Your task to perform on an android device: turn on wifi Image 0: 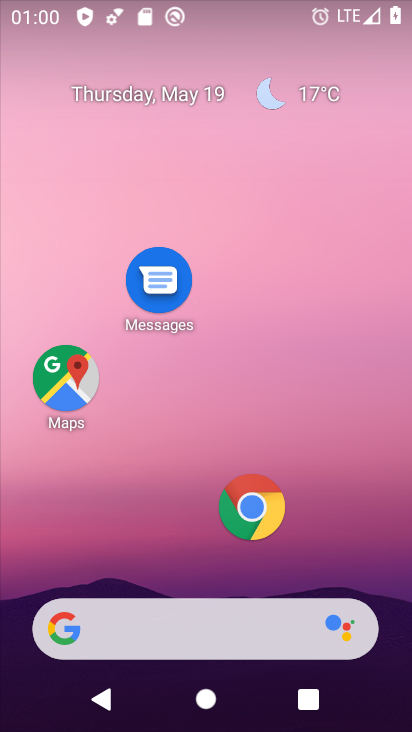
Step 0: drag from (185, 562) to (220, 245)
Your task to perform on an android device: turn on wifi Image 1: 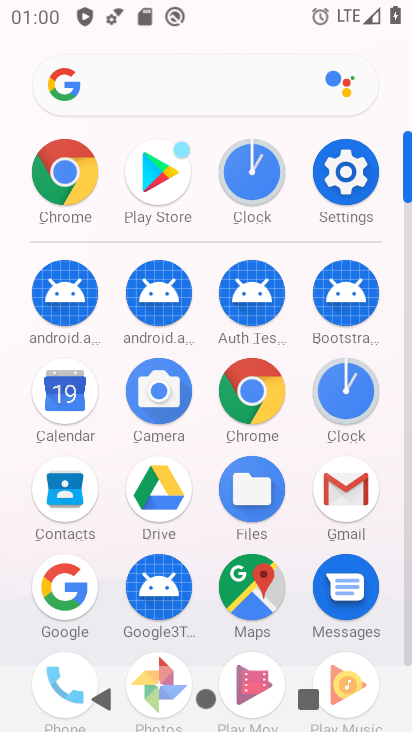
Step 1: click (352, 163)
Your task to perform on an android device: turn on wifi Image 2: 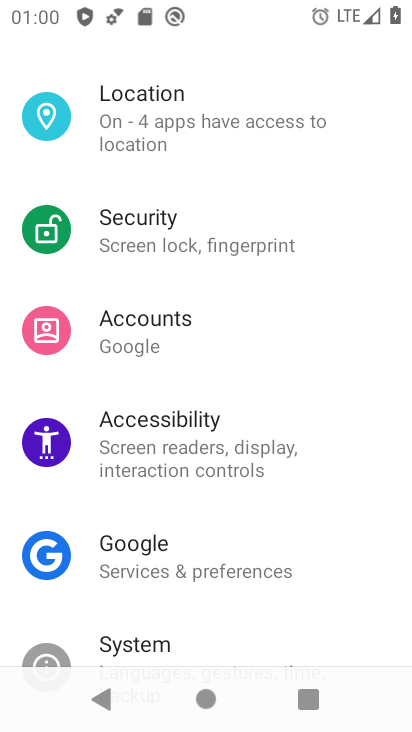
Step 2: drag from (136, 94) to (200, 411)
Your task to perform on an android device: turn on wifi Image 3: 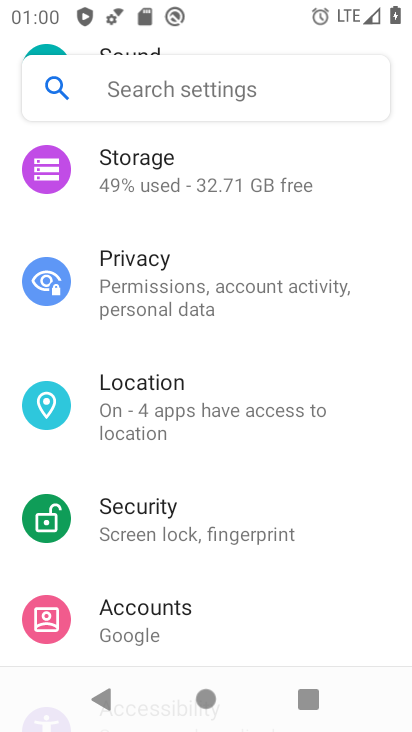
Step 3: drag from (174, 144) to (246, 421)
Your task to perform on an android device: turn on wifi Image 4: 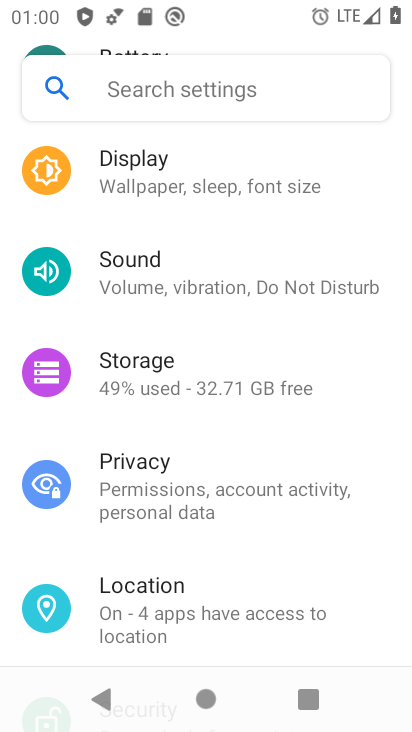
Step 4: drag from (279, 188) to (318, 526)
Your task to perform on an android device: turn on wifi Image 5: 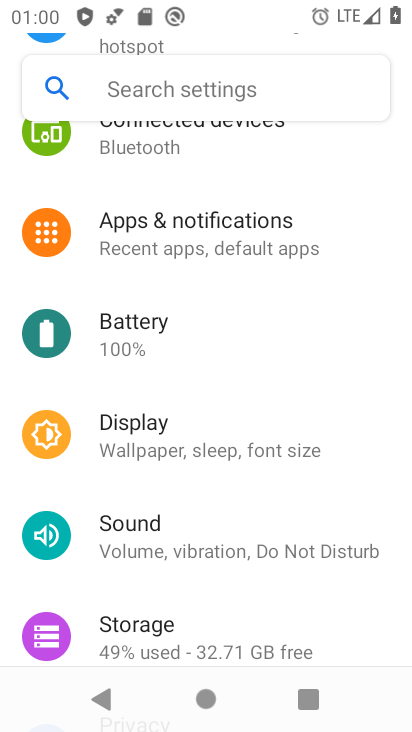
Step 5: drag from (183, 278) to (231, 481)
Your task to perform on an android device: turn on wifi Image 6: 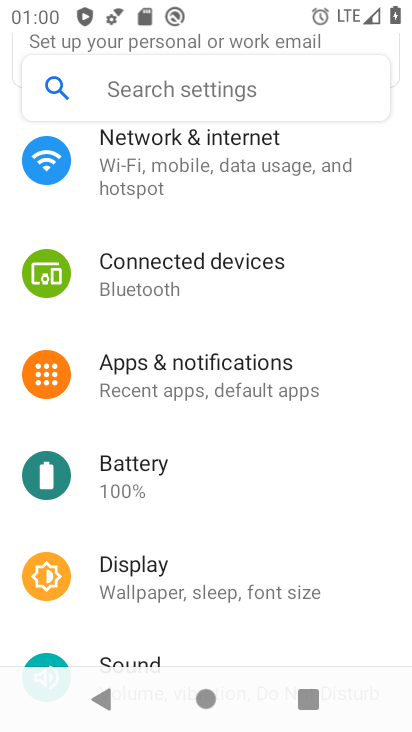
Step 6: drag from (207, 171) to (352, 523)
Your task to perform on an android device: turn on wifi Image 7: 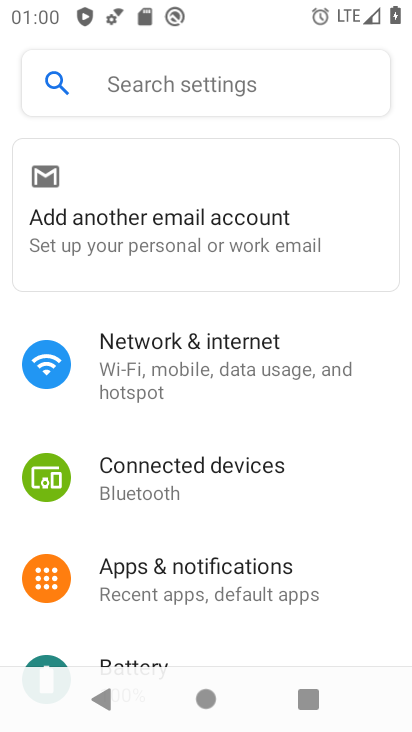
Step 7: click (112, 361)
Your task to perform on an android device: turn on wifi Image 8: 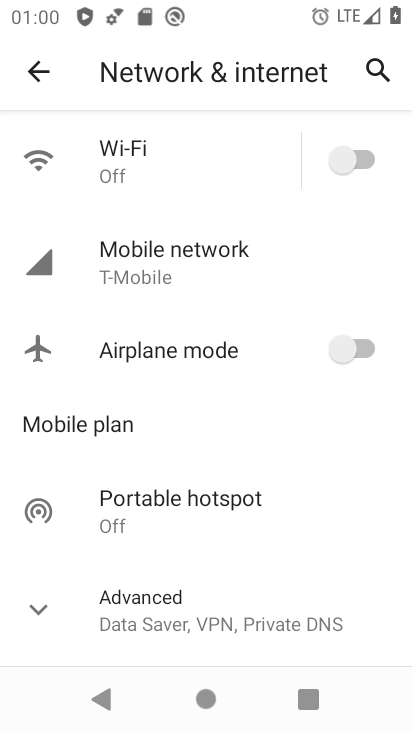
Step 8: click (374, 149)
Your task to perform on an android device: turn on wifi Image 9: 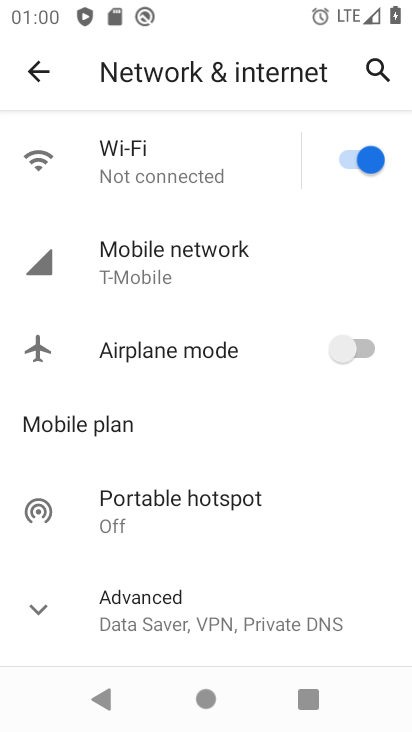
Step 9: task complete